Your task to perform on an android device: set the timer Image 0: 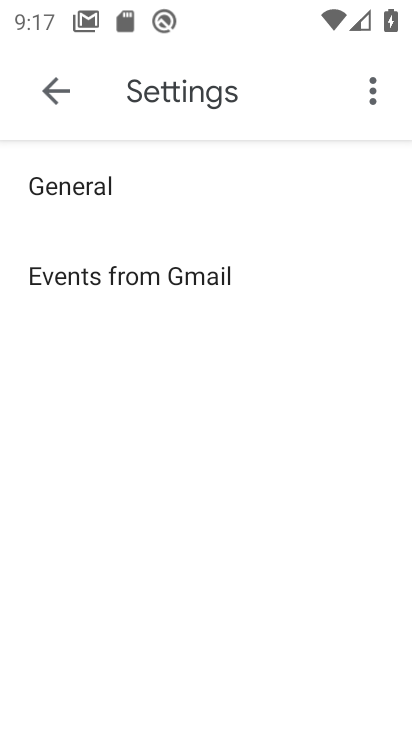
Step 0: press home button
Your task to perform on an android device: set the timer Image 1: 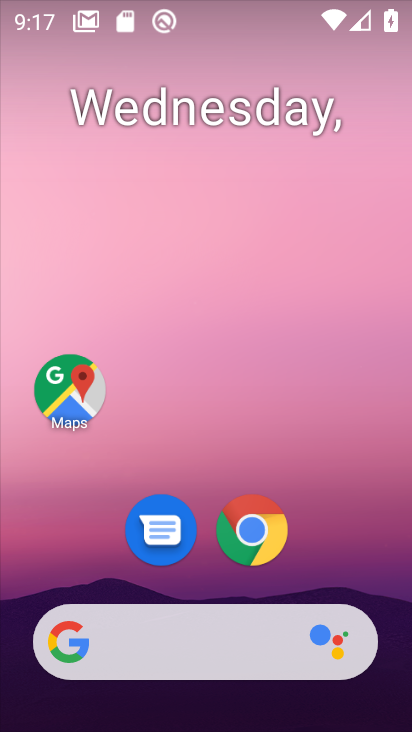
Step 1: drag from (392, 627) to (252, 35)
Your task to perform on an android device: set the timer Image 2: 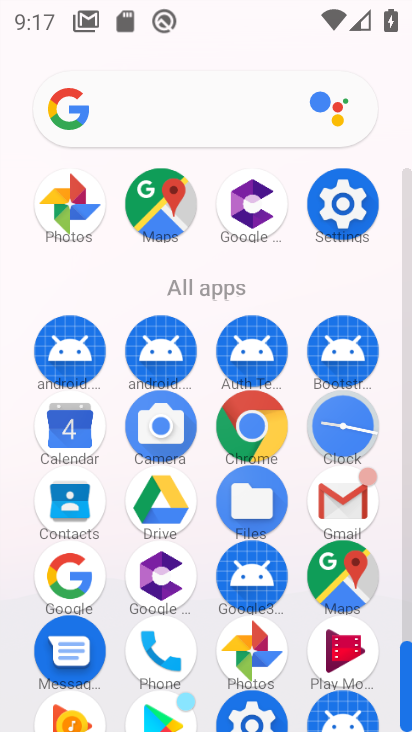
Step 2: click (333, 431)
Your task to perform on an android device: set the timer Image 3: 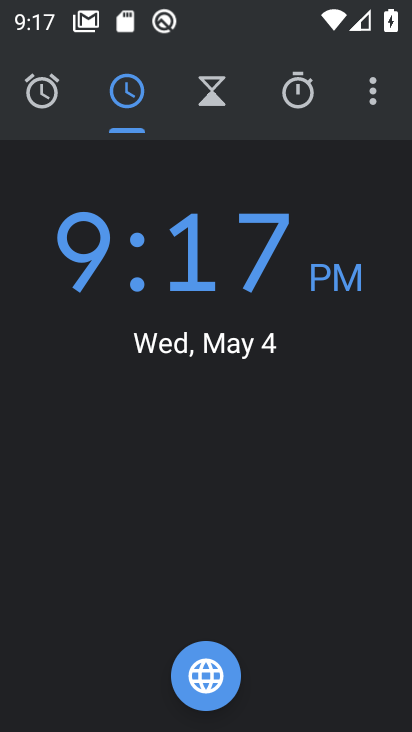
Step 3: click (371, 86)
Your task to perform on an android device: set the timer Image 4: 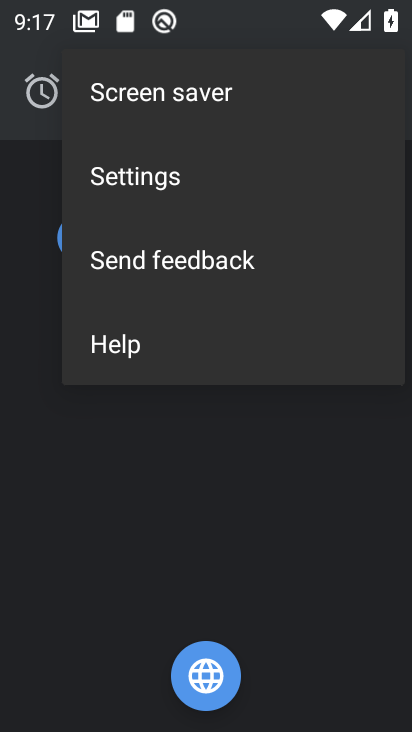
Step 4: click (239, 177)
Your task to perform on an android device: set the timer Image 5: 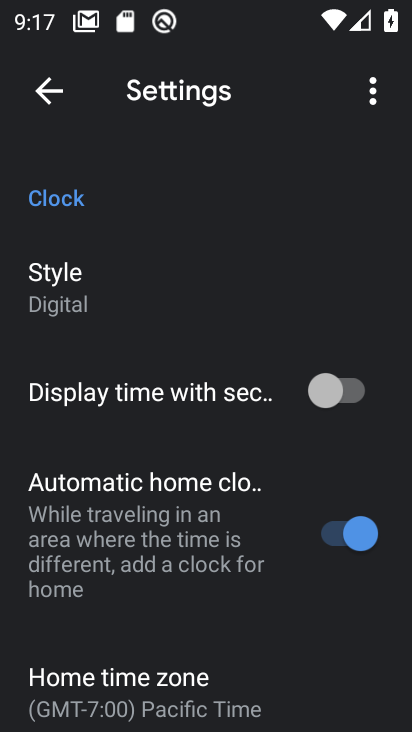
Step 5: click (172, 686)
Your task to perform on an android device: set the timer Image 6: 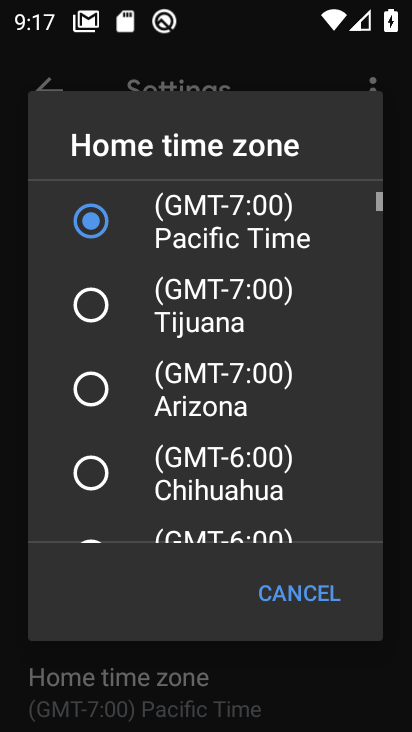
Step 6: click (141, 395)
Your task to perform on an android device: set the timer Image 7: 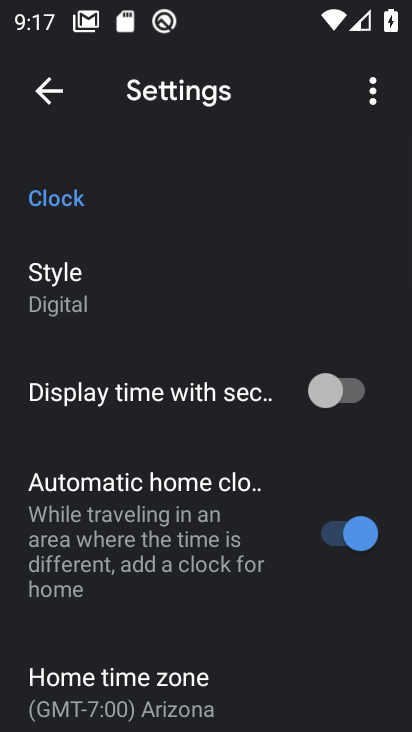
Step 7: task complete